Your task to perform on an android device: toggle notifications settings in the gmail app Image 0: 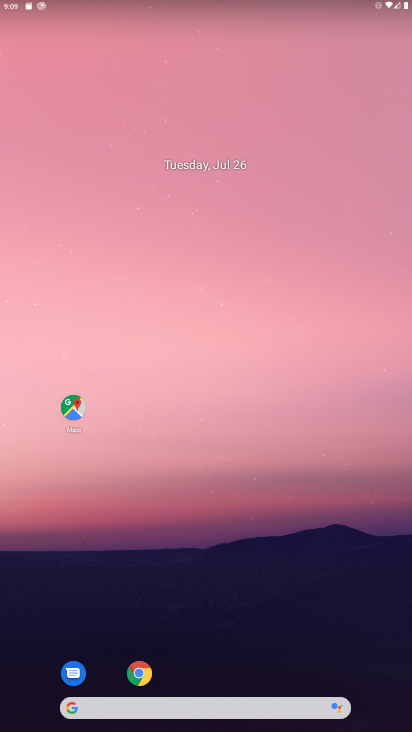
Step 0: drag from (265, 679) to (283, 3)
Your task to perform on an android device: toggle notifications settings in the gmail app Image 1: 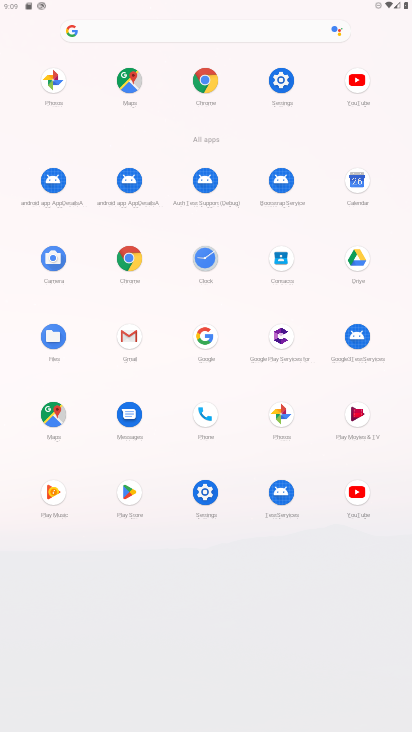
Step 1: click (126, 340)
Your task to perform on an android device: toggle notifications settings in the gmail app Image 2: 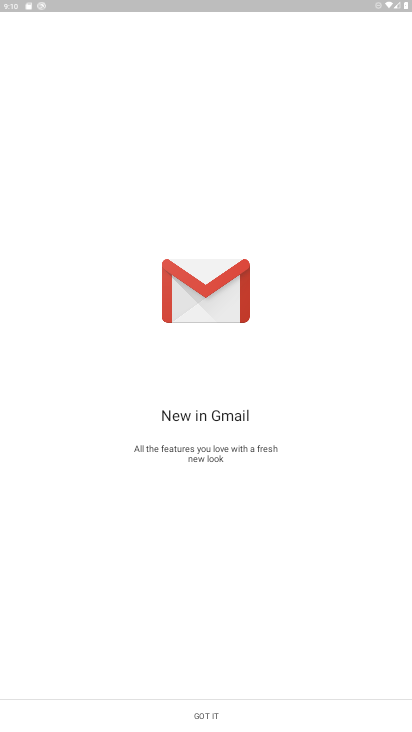
Step 2: click (198, 715)
Your task to perform on an android device: toggle notifications settings in the gmail app Image 3: 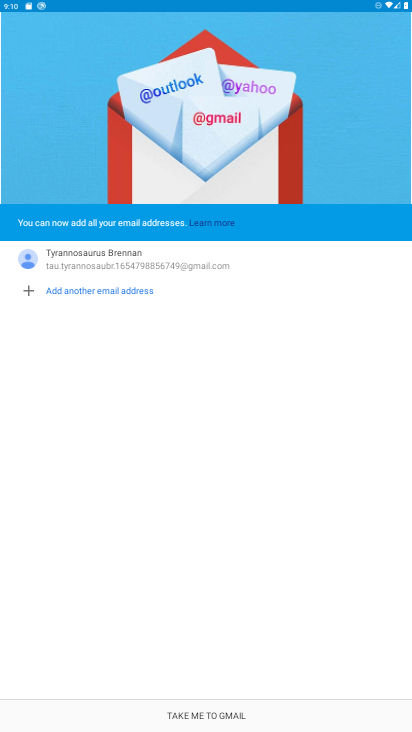
Step 3: click (218, 719)
Your task to perform on an android device: toggle notifications settings in the gmail app Image 4: 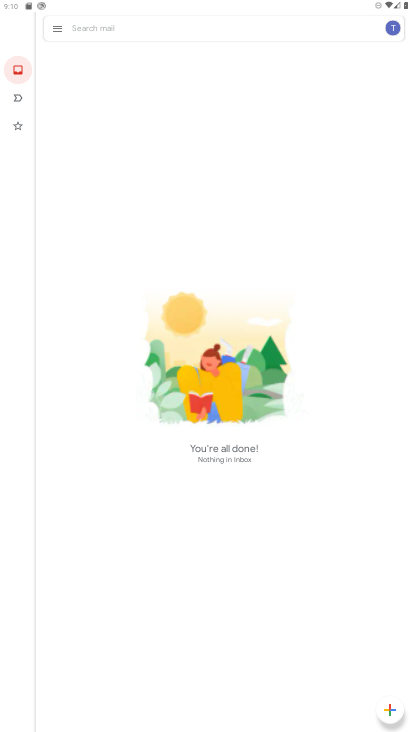
Step 4: click (60, 28)
Your task to perform on an android device: toggle notifications settings in the gmail app Image 5: 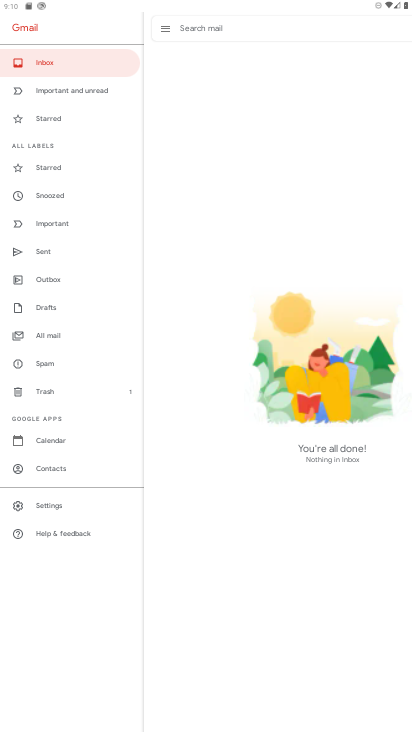
Step 5: click (39, 507)
Your task to perform on an android device: toggle notifications settings in the gmail app Image 6: 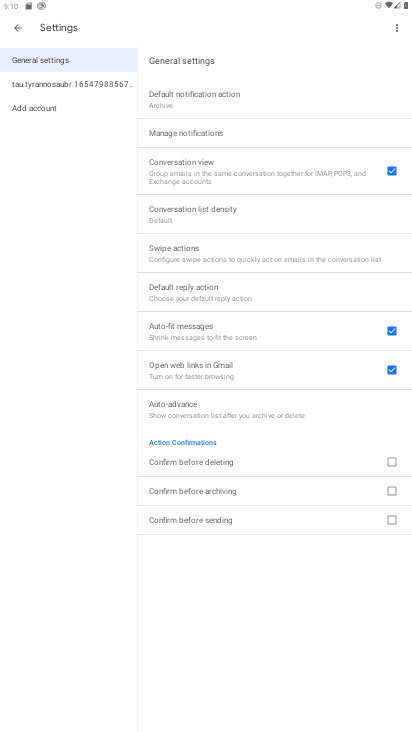
Step 6: click (188, 135)
Your task to perform on an android device: toggle notifications settings in the gmail app Image 7: 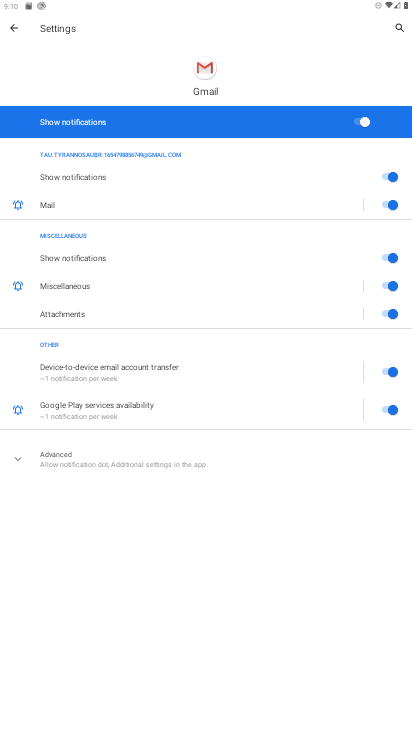
Step 7: click (366, 124)
Your task to perform on an android device: toggle notifications settings in the gmail app Image 8: 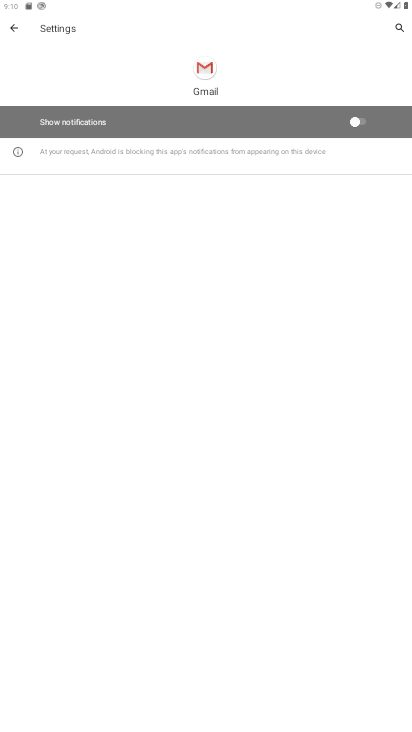
Step 8: task complete